Your task to perform on an android device: open a bookmark in the chrome app Image 0: 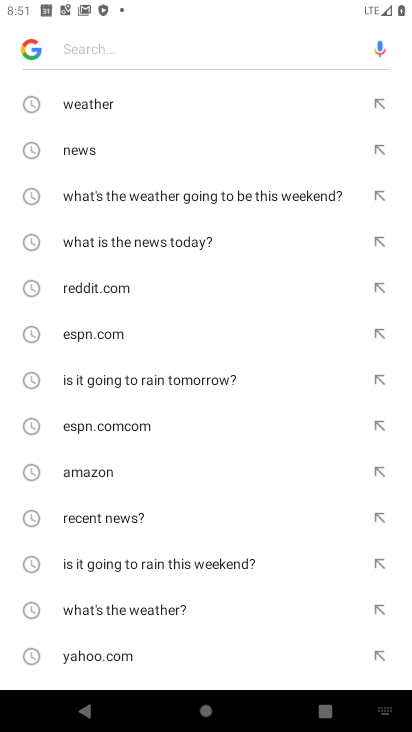
Step 0: press home button
Your task to perform on an android device: open a bookmark in the chrome app Image 1: 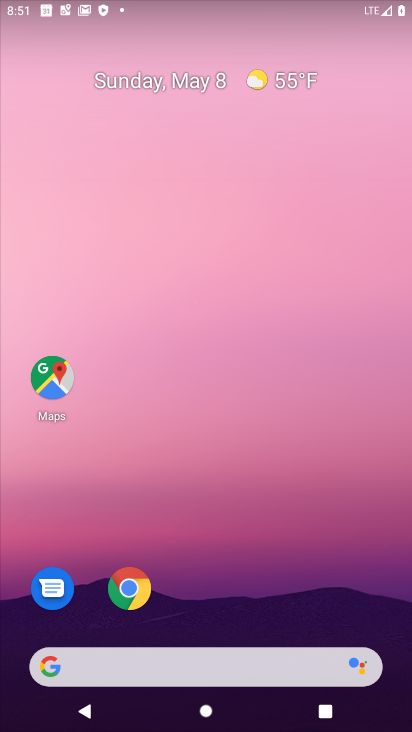
Step 1: drag from (353, 607) to (250, 136)
Your task to perform on an android device: open a bookmark in the chrome app Image 2: 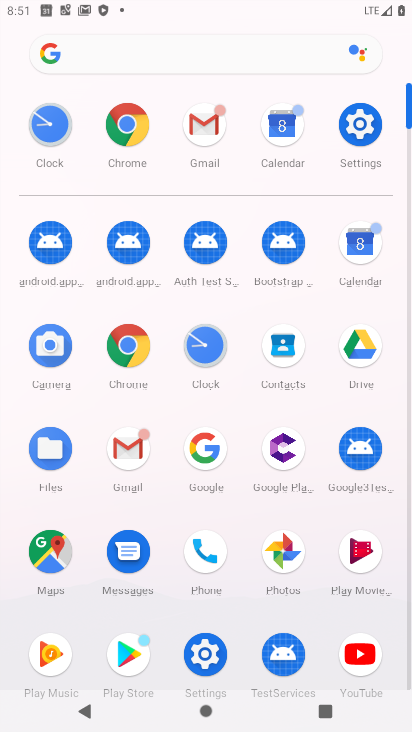
Step 2: click (127, 112)
Your task to perform on an android device: open a bookmark in the chrome app Image 3: 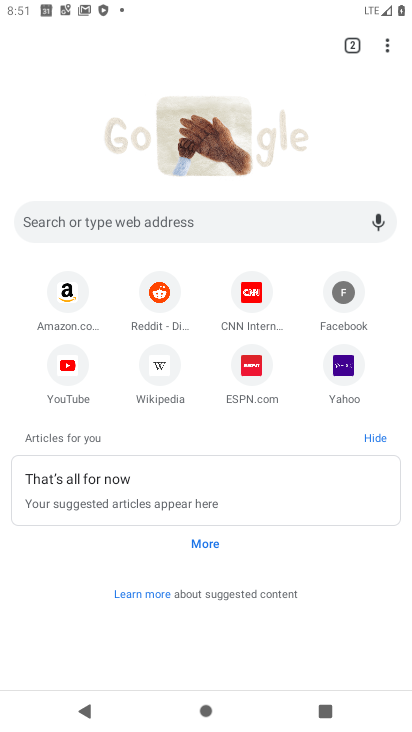
Step 3: click (386, 43)
Your task to perform on an android device: open a bookmark in the chrome app Image 4: 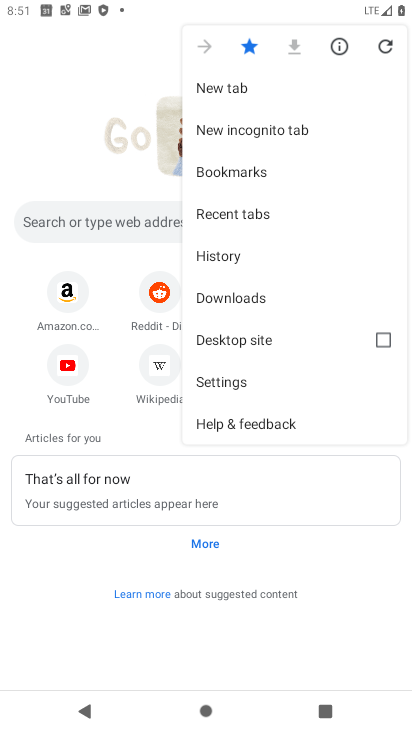
Step 4: click (275, 169)
Your task to perform on an android device: open a bookmark in the chrome app Image 5: 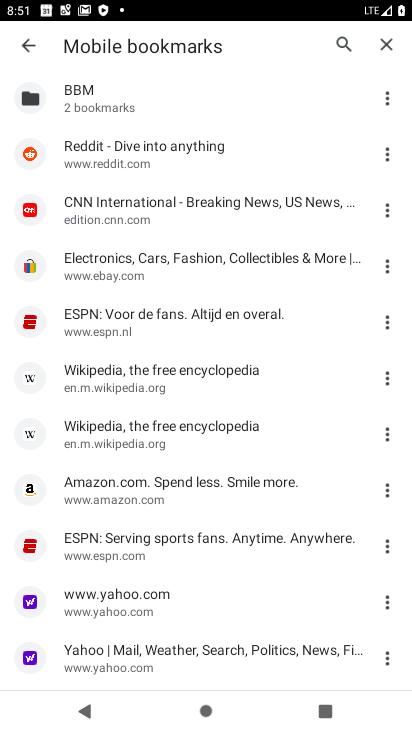
Step 5: task complete